Your task to perform on an android device: toggle sleep mode Image 0: 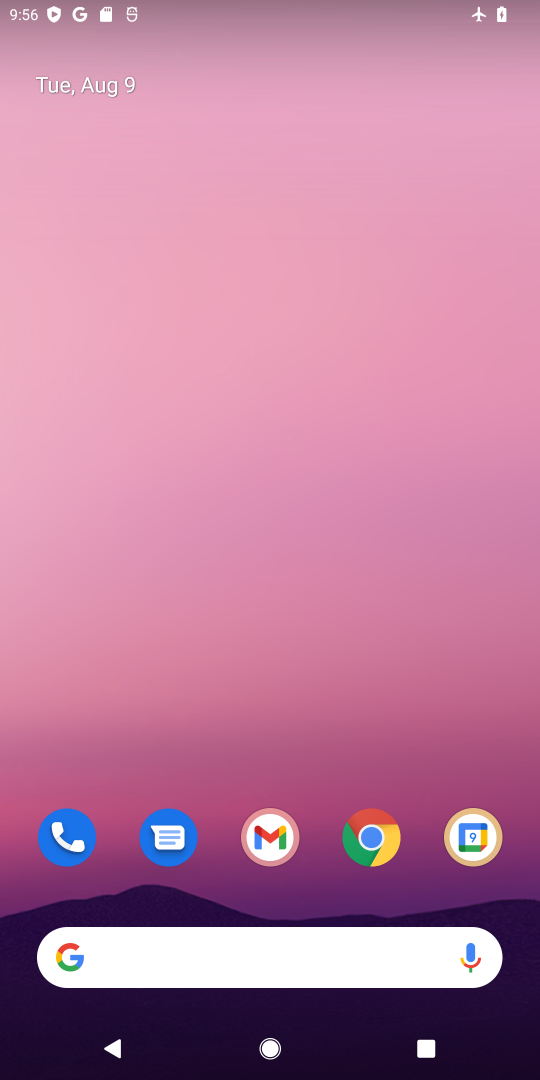
Step 0: drag from (303, 908) to (305, 289)
Your task to perform on an android device: toggle sleep mode Image 1: 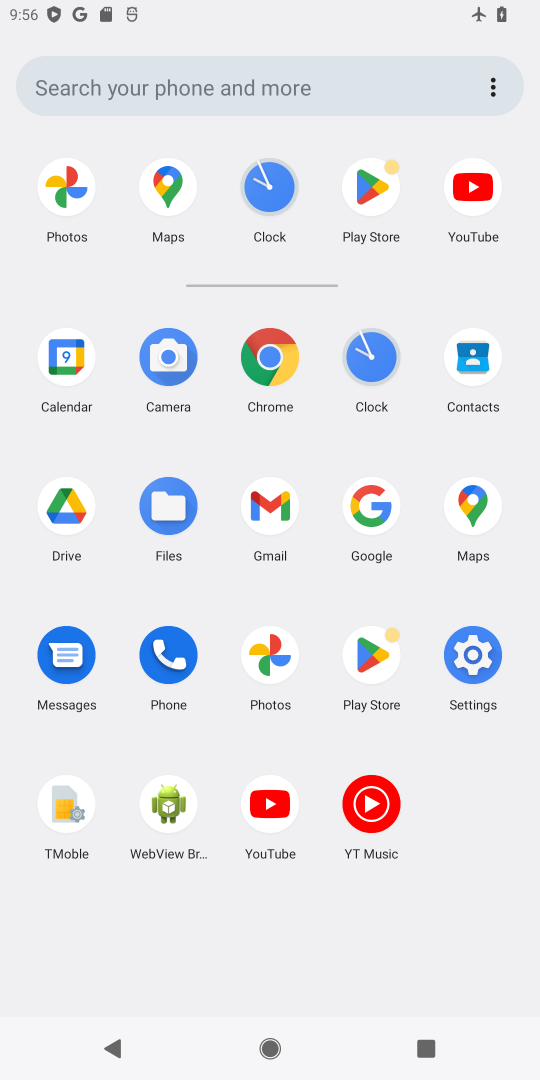
Step 1: click (472, 649)
Your task to perform on an android device: toggle sleep mode Image 2: 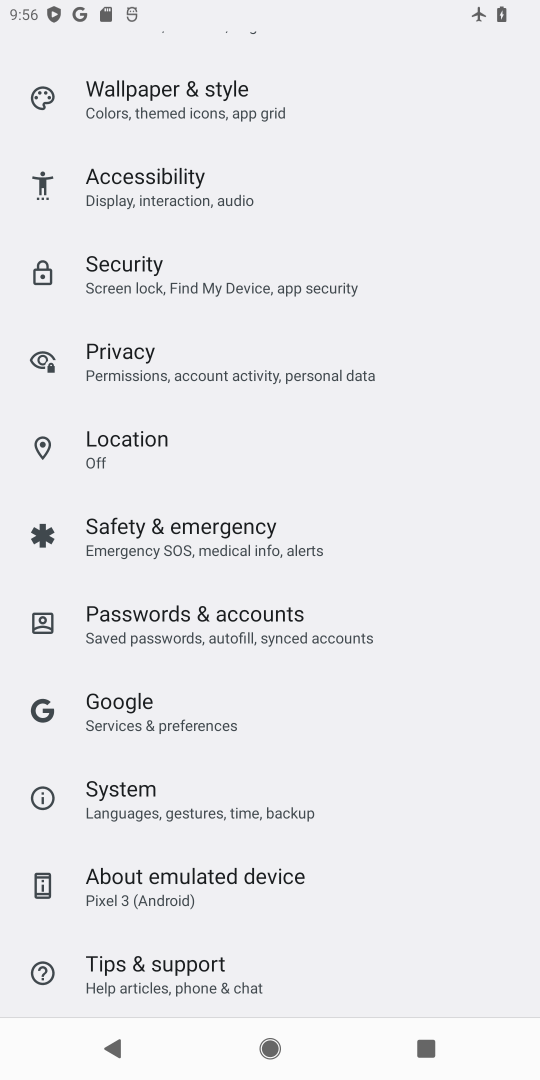
Step 2: task complete